Your task to perform on an android device: turn on translation in the chrome app Image 0: 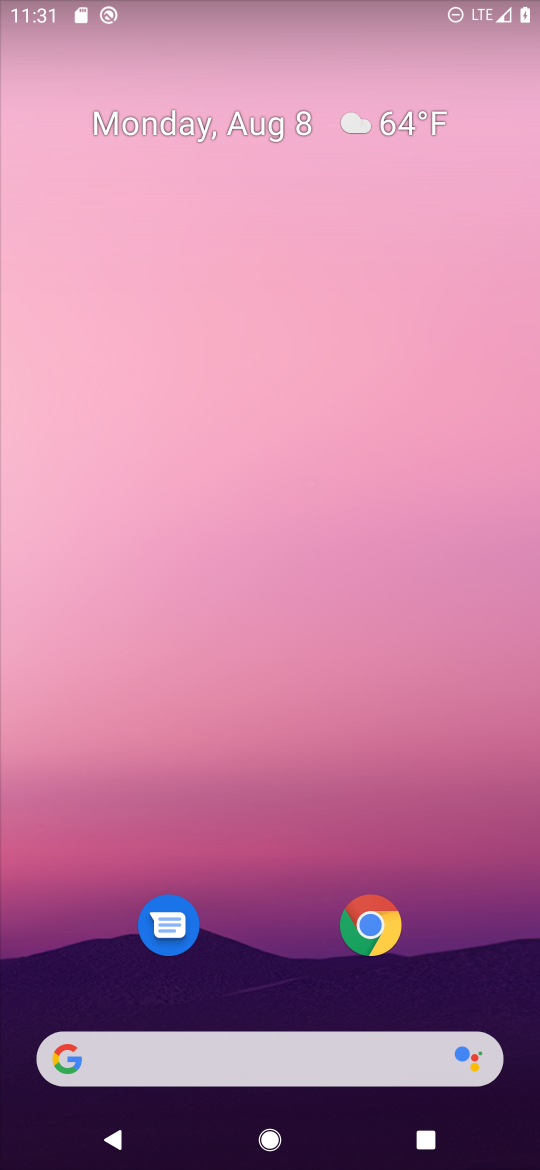
Step 0: drag from (246, 893) to (275, 209)
Your task to perform on an android device: turn on translation in the chrome app Image 1: 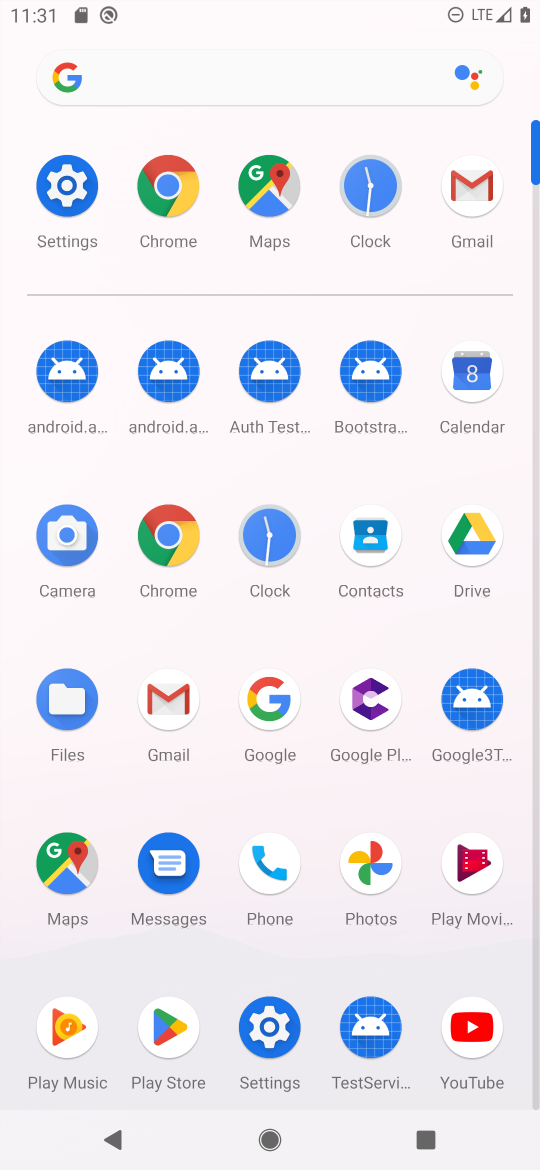
Step 1: click (167, 541)
Your task to perform on an android device: turn on translation in the chrome app Image 2: 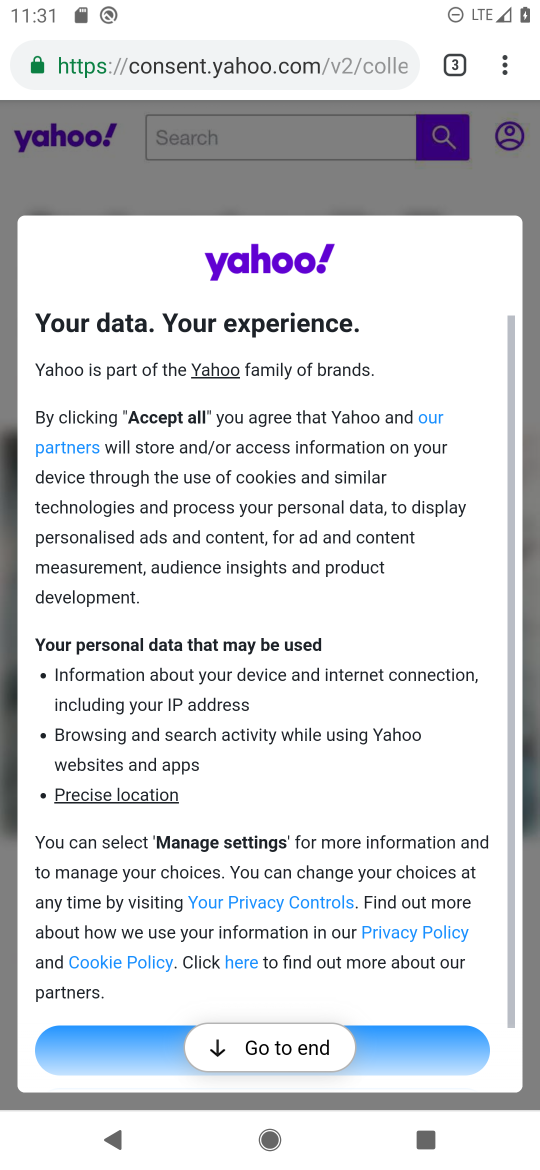
Step 2: drag from (502, 59) to (288, 859)
Your task to perform on an android device: turn on translation in the chrome app Image 3: 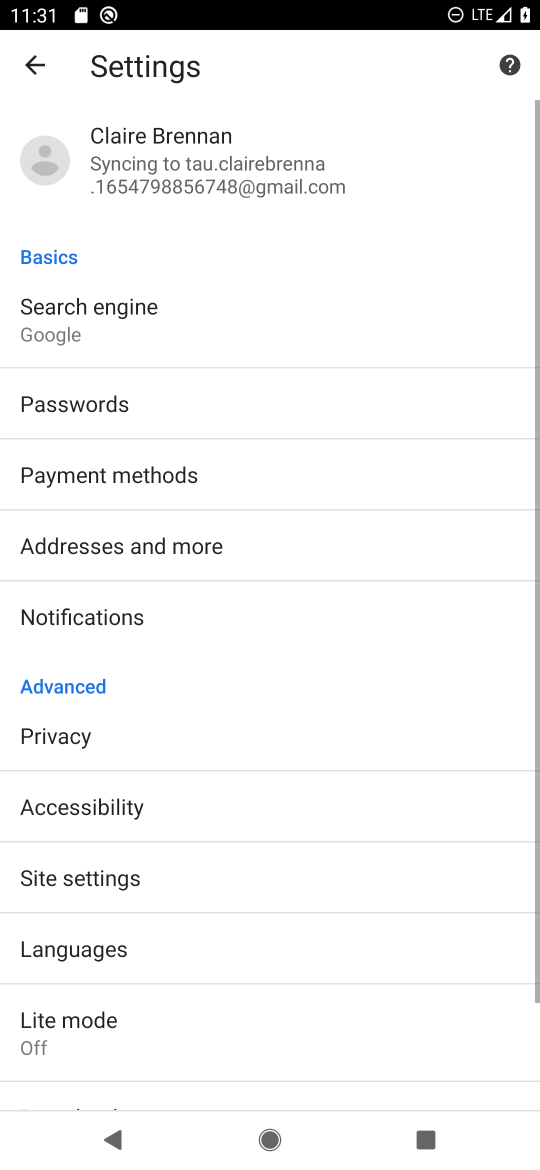
Step 3: drag from (198, 937) to (256, 326)
Your task to perform on an android device: turn on translation in the chrome app Image 4: 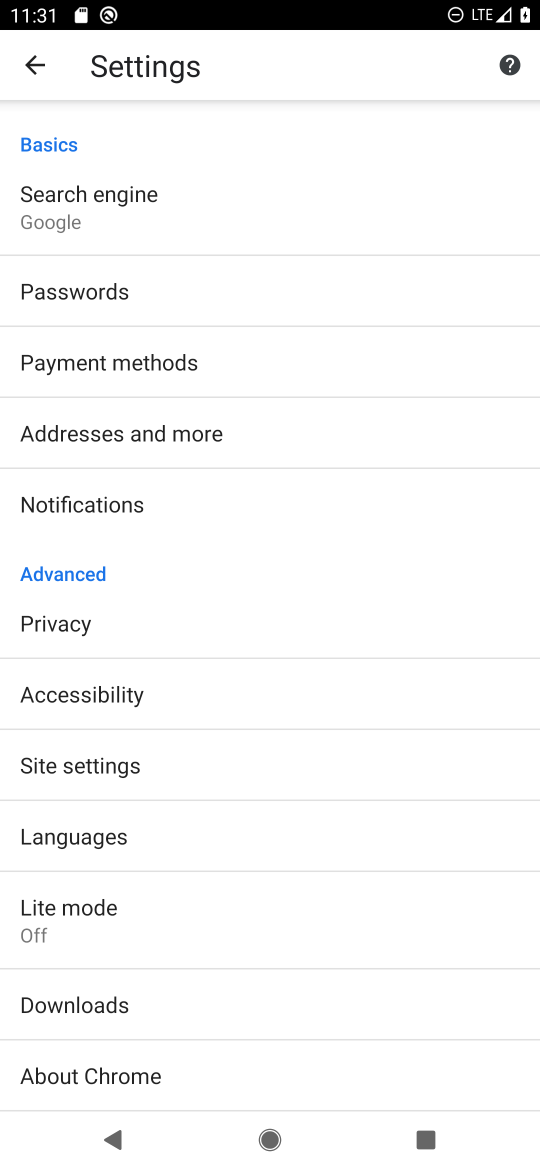
Step 4: click (92, 848)
Your task to perform on an android device: turn on translation in the chrome app Image 5: 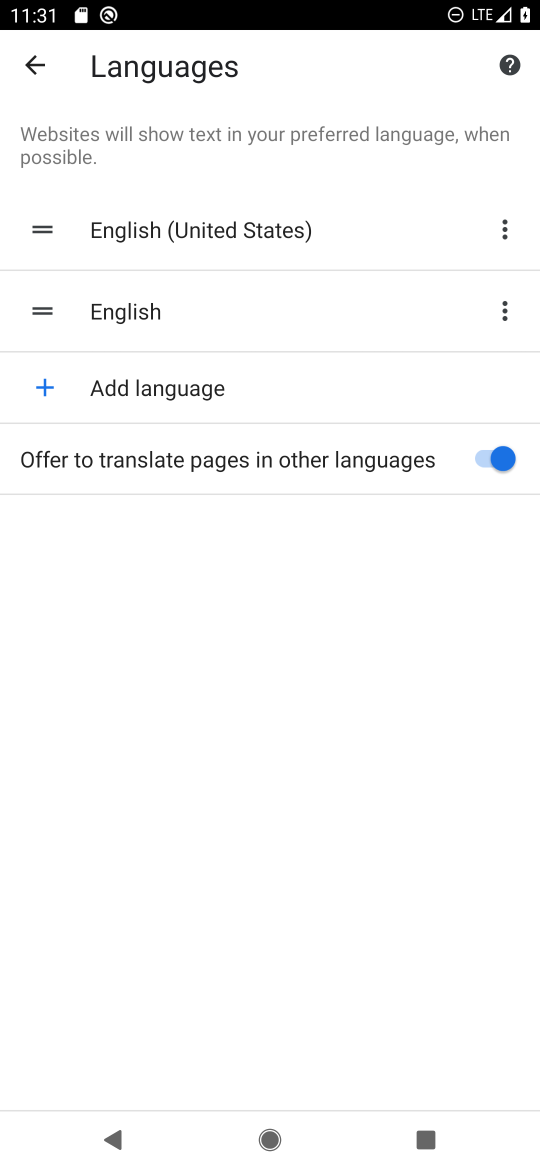
Step 5: task complete